Your task to perform on an android device: check battery use Image 0: 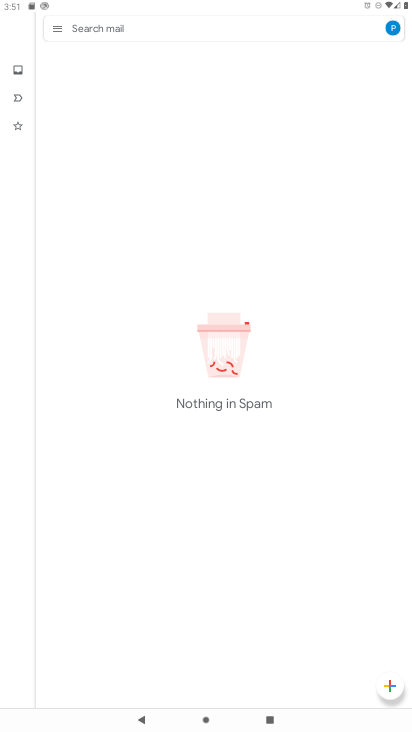
Step 0: press home button
Your task to perform on an android device: check battery use Image 1: 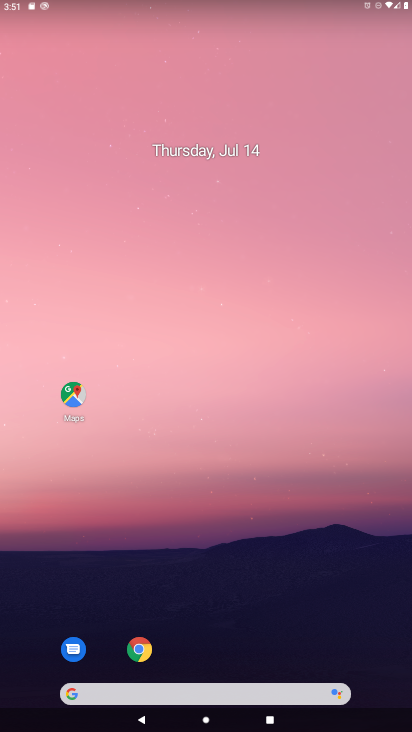
Step 1: drag from (256, 671) to (231, 0)
Your task to perform on an android device: check battery use Image 2: 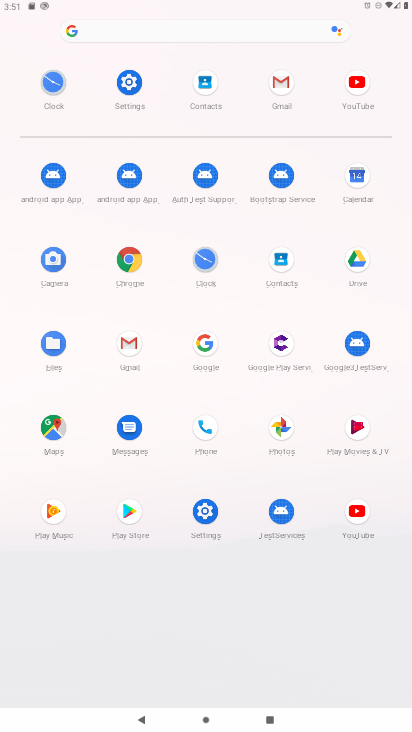
Step 2: click (189, 524)
Your task to perform on an android device: check battery use Image 3: 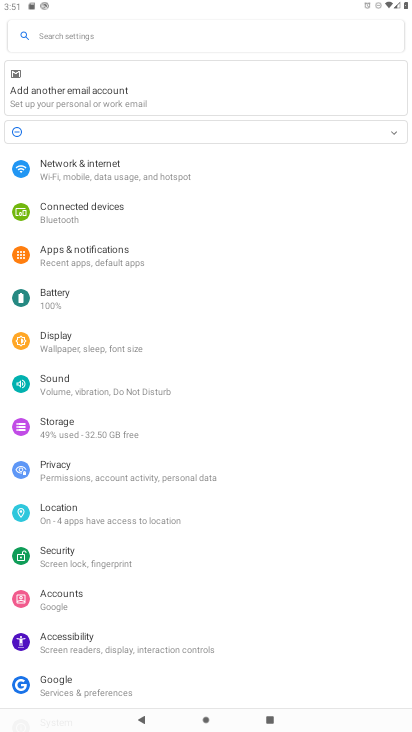
Step 3: click (80, 301)
Your task to perform on an android device: check battery use Image 4: 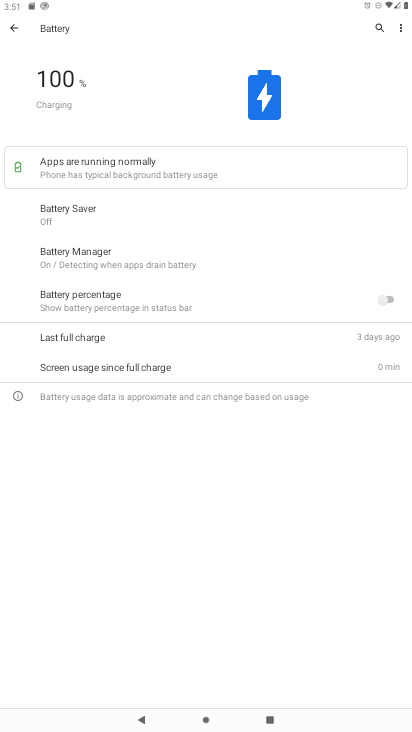
Step 4: click (401, 25)
Your task to perform on an android device: check battery use Image 5: 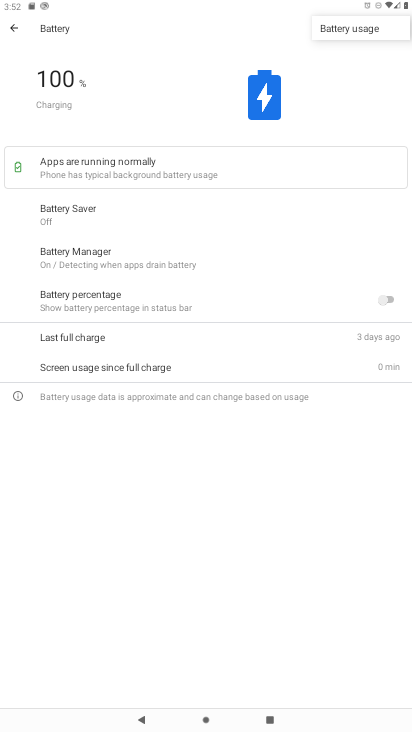
Step 5: click (355, 26)
Your task to perform on an android device: check battery use Image 6: 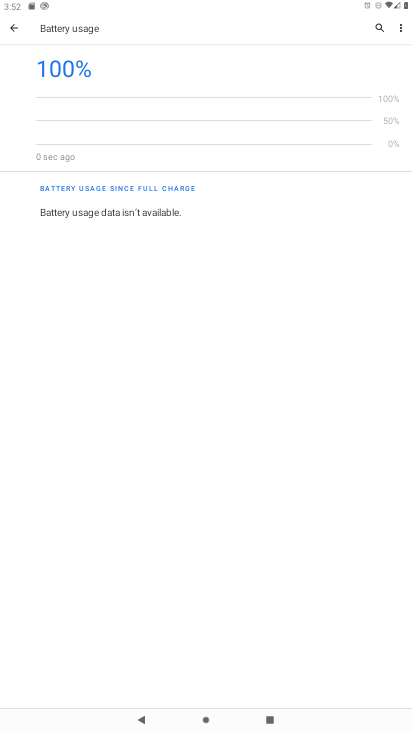
Step 6: task complete